Your task to perform on an android device: empty trash in google photos Image 0: 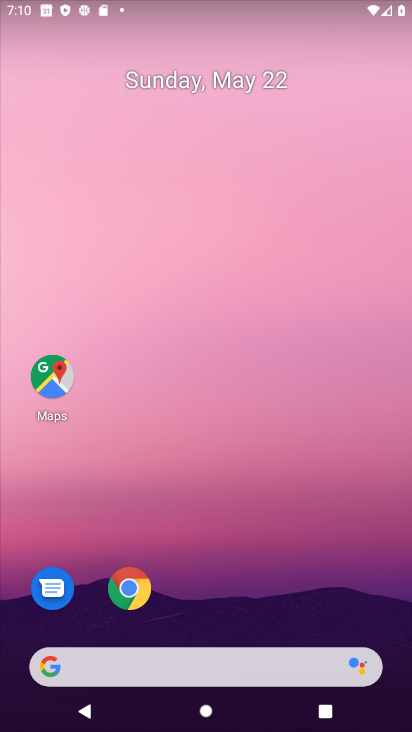
Step 0: drag from (275, 566) to (276, 28)
Your task to perform on an android device: empty trash in google photos Image 1: 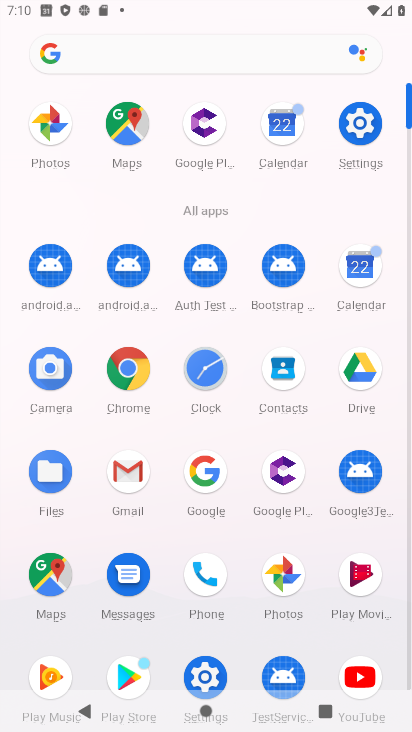
Step 1: click (52, 128)
Your task to perform on an android device: empty trash in google photos Image 2: 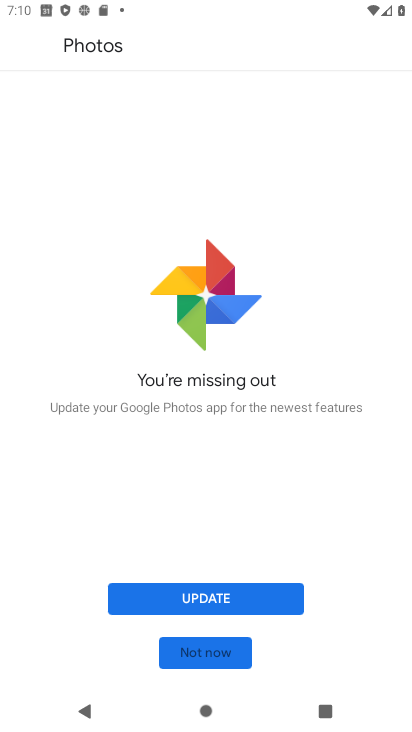
Step 2: click (203, 598)
Your task to perform on an android device: empty trash in google photos Image 3: 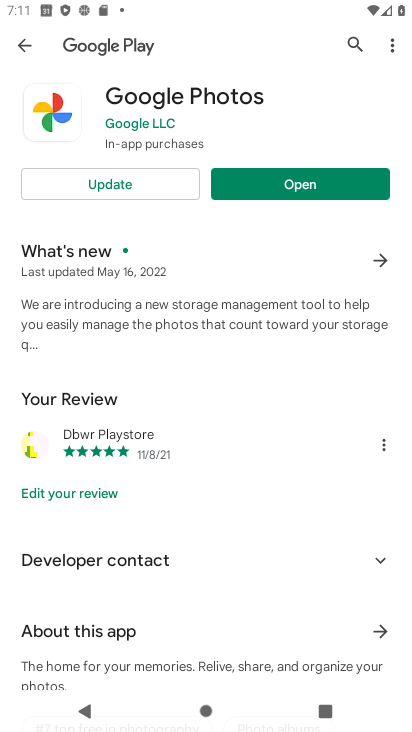
Step 3: click (122, 183)
Your task to perform on an android device: empty trash in google photos Image 4: 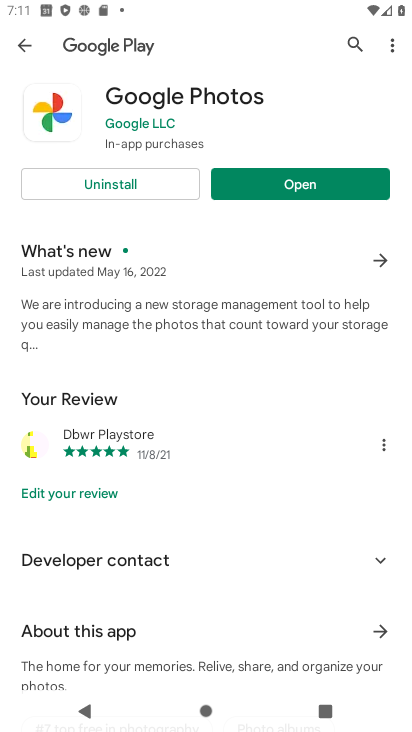
Step 4: click (284, 186)
Your task to perform on an android device: empty trash in google photos Image 5: 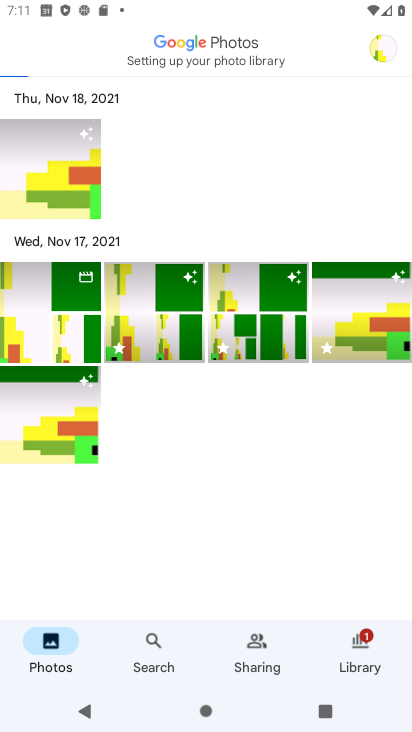
Step 5: click (363, 647)
Your task to perform on an android device: empty trash in google photos Image 6: 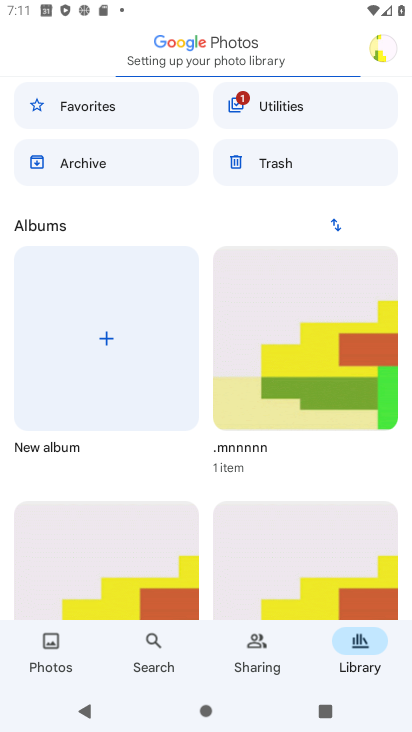
Step 6: click (248, 158)
Your task to perform on an android device: empty trash in google photos Image 7: 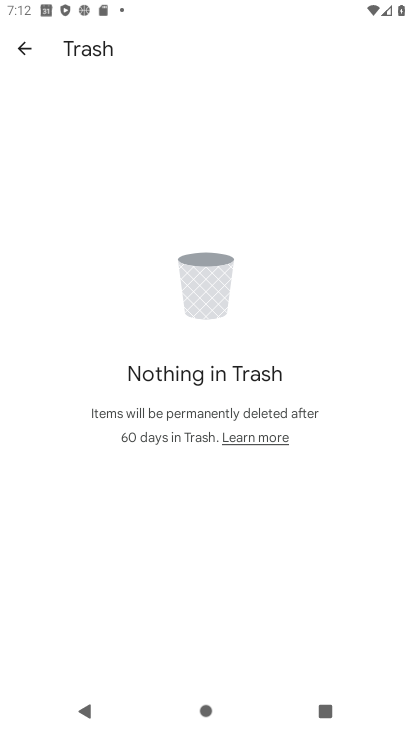
Step 7: task complete